Your task to perform on an android device: Open display settings Image 0: 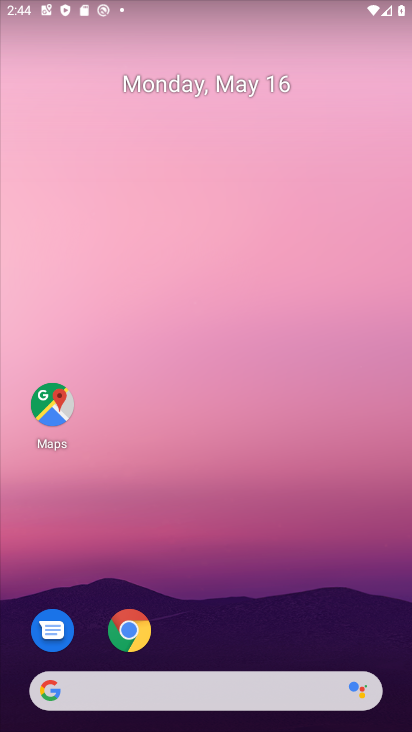
Step 0: drag from (224, 639) to (247, 163)
Your task to perform on an android device: Open display settings Image 1: 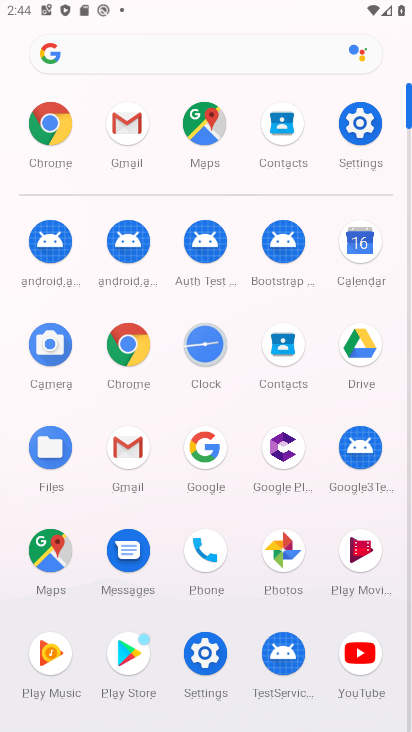
Step 1: click (359, 123)
Your task to perform on an android device: Open display settings Image 2: 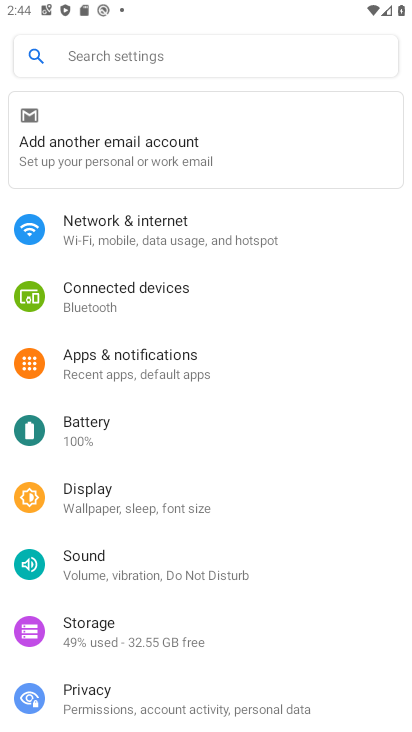
Step 2: click (119, 485)
Your task to perform on an android device: Open display settings Image 3: 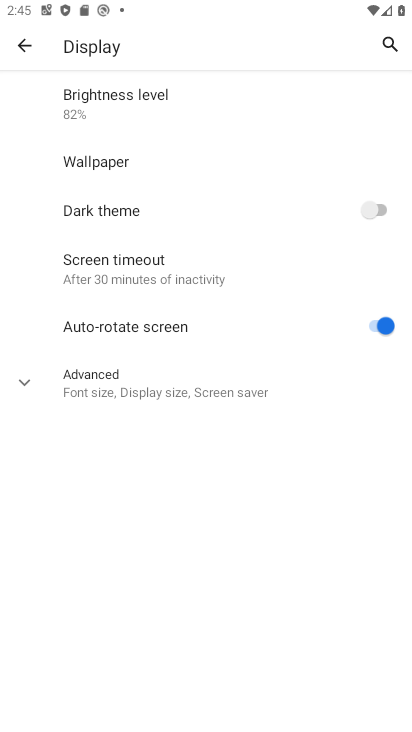
Step 3: click (46, 380)
Your task to perform on an android device: Open display settings Image 4: 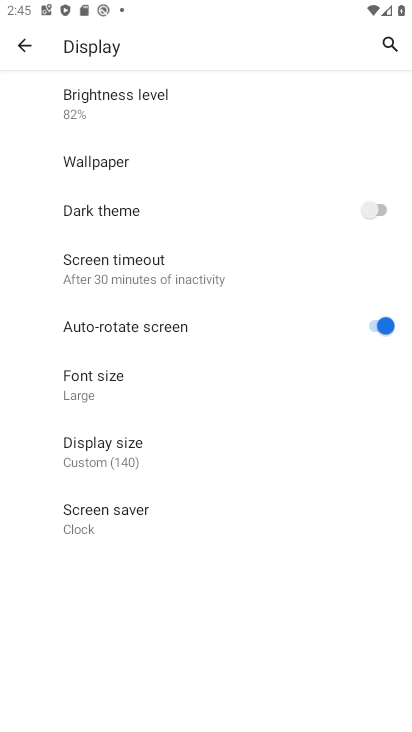
Step 4: task complete